Your task to perform on an android device: toggle sleep mode Image 0: 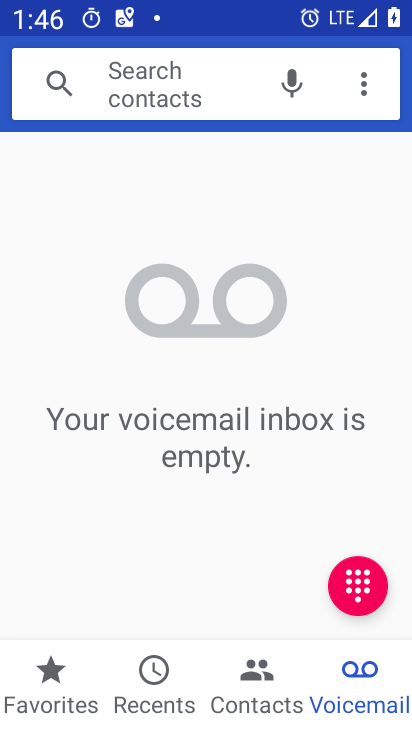
Step 0: press home button
Your task to perform on an android device: toggle sleep mode Image 1: 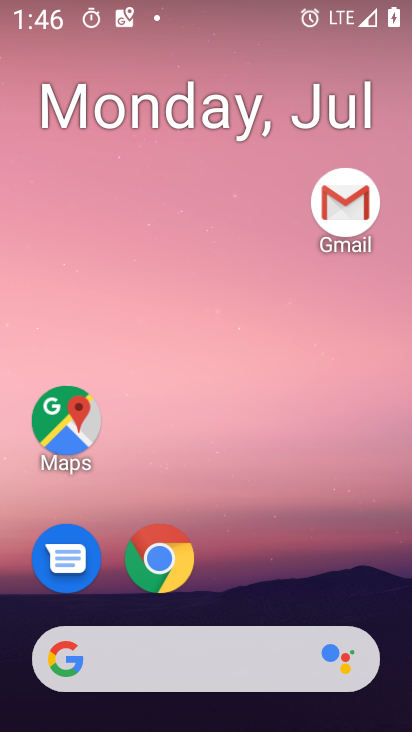
Step 1: drag from (358, 593) to (353, 231)
Your task to perform on an android device: toggle sleep mode Image 2: 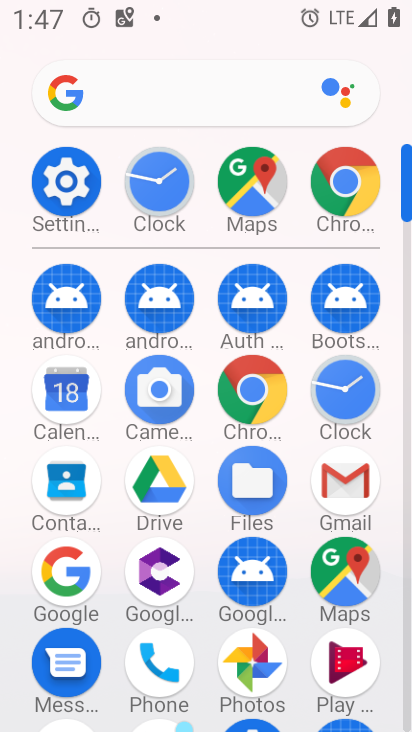
Step 2: click (80, 182)
Your task to perform on an android device: toggle sleep mode Image 3: 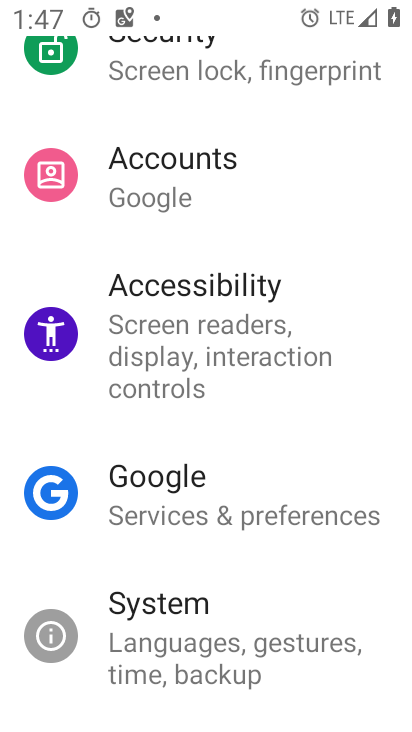
Step 3: drag from (342, 210) to (327, 297)
Your task to perform on an android device: toggle sleep mode Image 4: 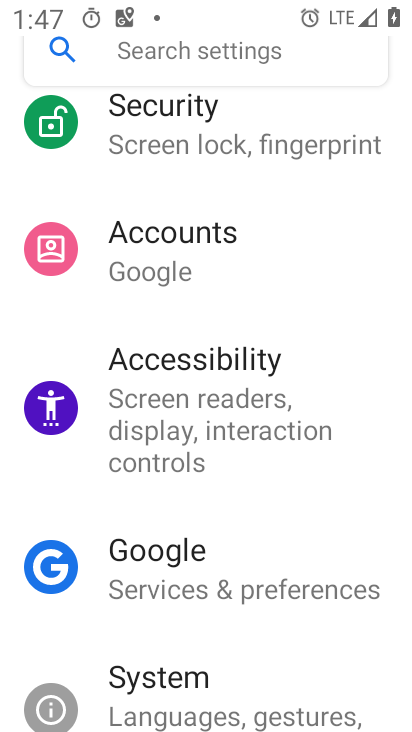
Step 4: drag from (354, 217) to (355, 293)
Your task to perform on an android device: toggle sleep mode Image 5: 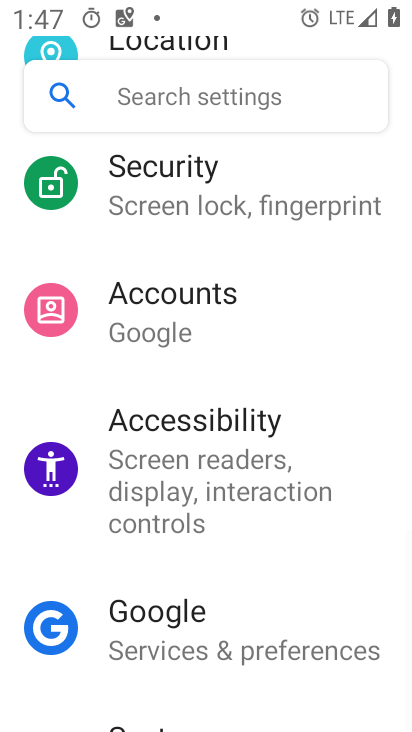
Step 5: drag from (361, 229) to (359, 340)
Your task to perform on an android device: toggle sleep mode Image 6: 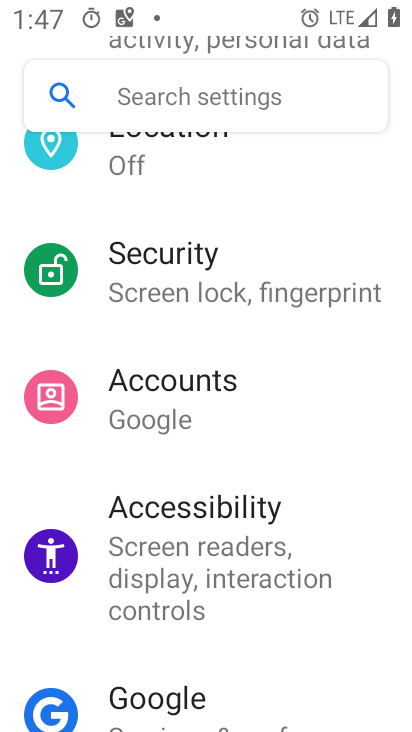
Step 6: drag from (373, 237) to (366, 360)
Your task to perform on an android device: toggle sleep mode Image 7: 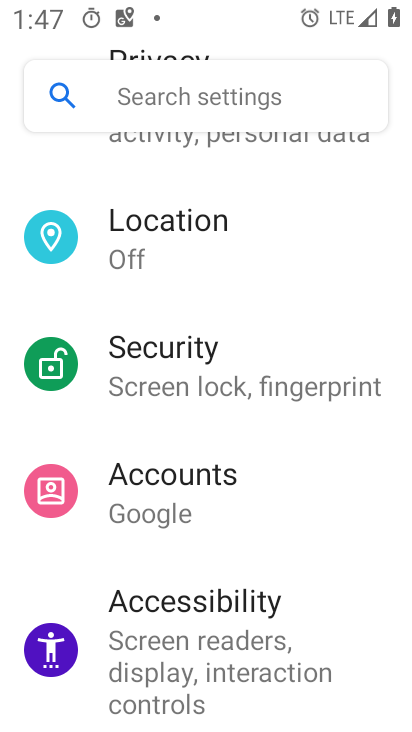
Step 7: drag from (353, 224) to (355, 309)
Your task to perform on an android device: toggle sleep mode Image 8: 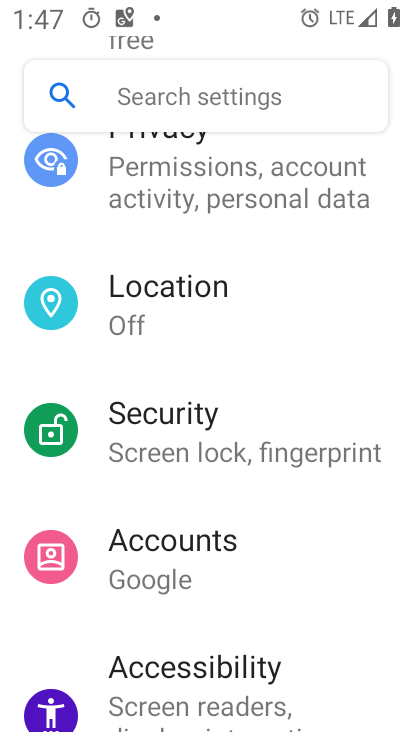
Step 8: drag from (366, 160) to (365, 312)
Your task to perform on an android device: toggle sleep mode Image 9: 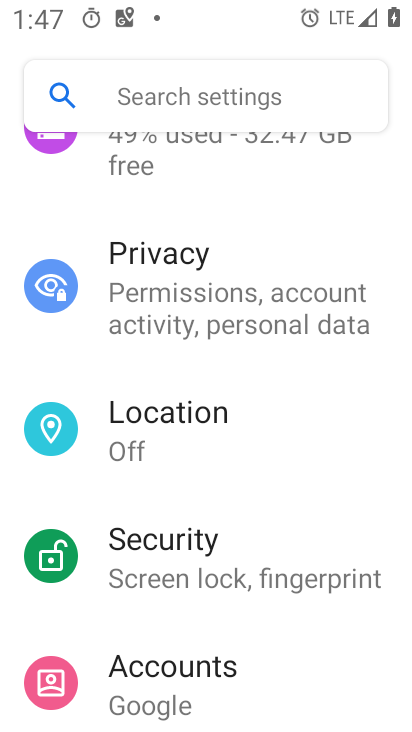
Step 9: drag from (353, 232) to (353, 334)
Your task to perform on an android device: toggle sleep mode Image 10: 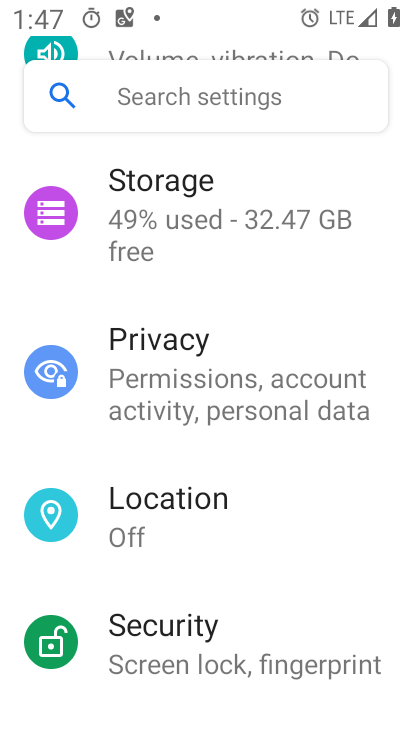
Step 10: drag from (341, 186) to (338, 316)
Your task to perform on an android device: toggle sleep mode Image 11: 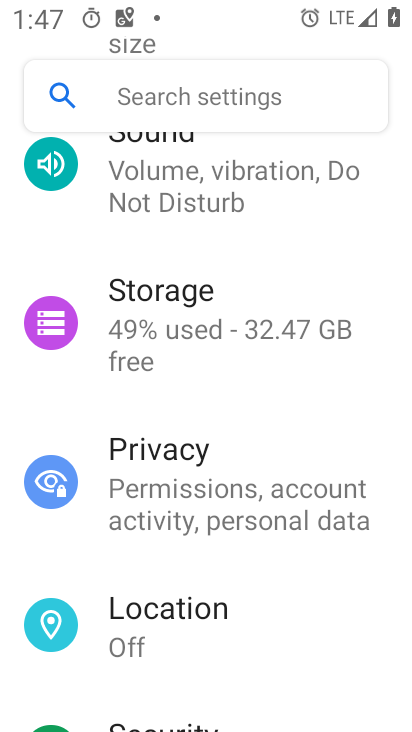
Step 11: drag from (328, 188) to (324, 323)
Your task to perform on an android device: toggle sleep mode Image 12: 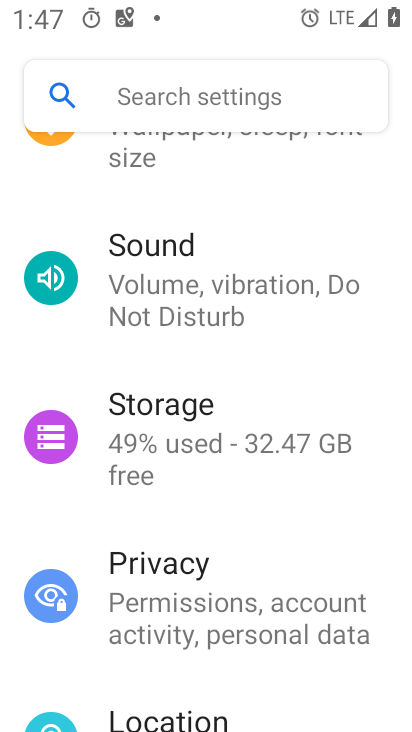
Step 12: drag from (313, 189) to (313, 289)
Your task to perform on an android device: toggle sleep mode Image 13: 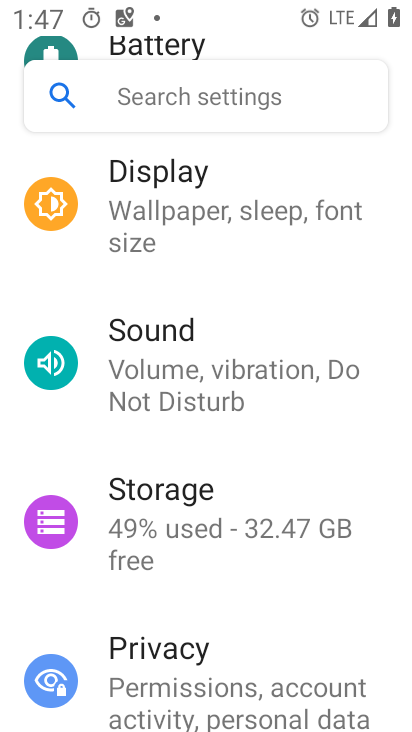
Step 13: drag from (324, 165) to (326, 337)
Your task to perform on an android device: toggle sleep mode Image 14: 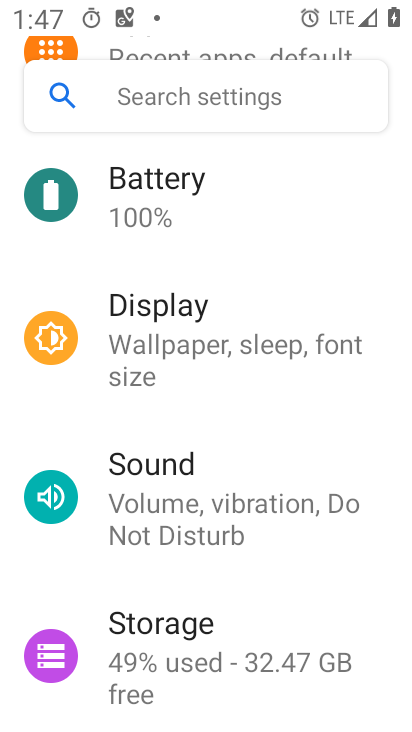
Step 14: click (298, 333)
Your task to perform on an android device: toggle sleep mode Image 15: 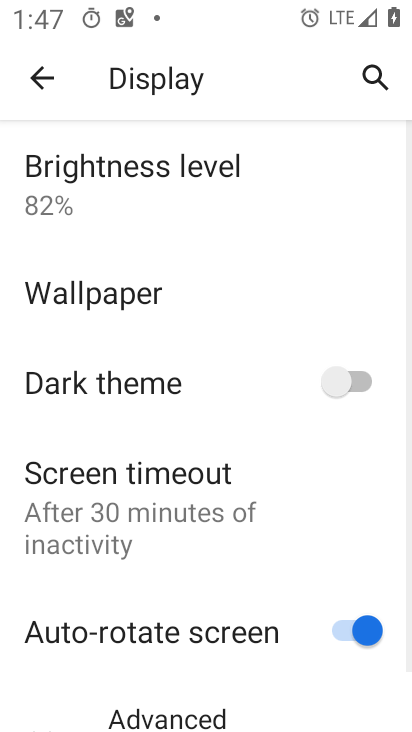
Step 15: drag from (288, 449) to (289, 297)
Your task to perform on an android device: toggle sleep mode Image 16: 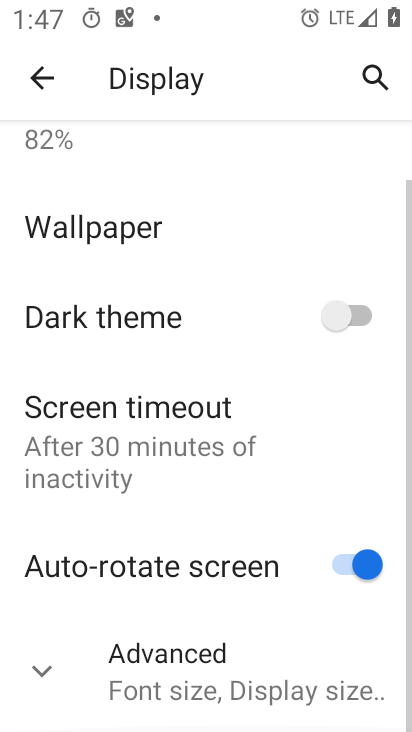
Step 16: click (275, 621)
Your task to perform on an android device: toggle sleep mode Image 17: 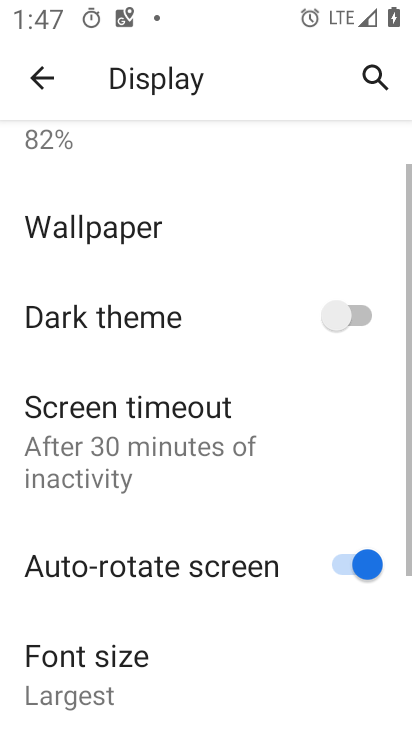
Step 17: task complete